Your task to perform on an android device: change the clock display to show seconds Image 0: 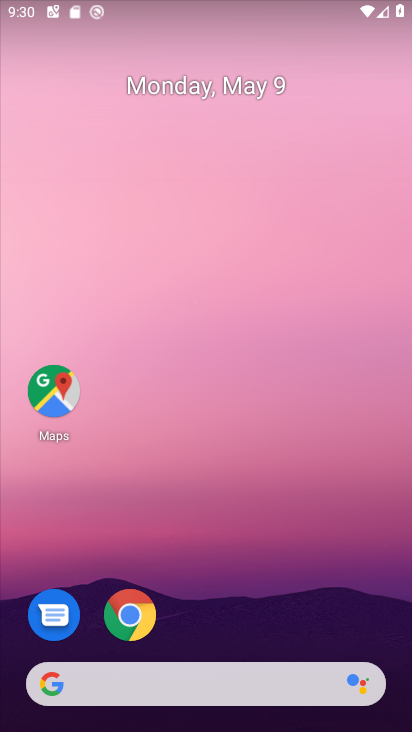
Step 0: drag from (278, 675) to (280, 305)
Your task to perform on an android device: change the clock display to show seconds Image 1: 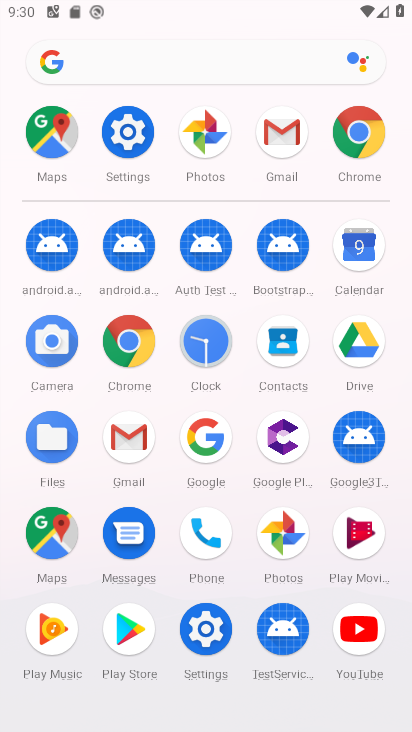
Step 1: click (220, 334)
Your task to perform on an android device: change the clock display to show seconds Image 2: 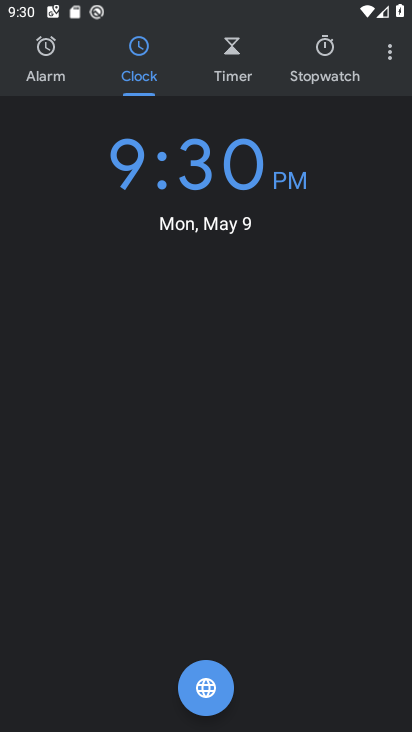
Step 2: click (392, 65)
Your task to perform on an android device: change the clock display to show seconds Image 3: 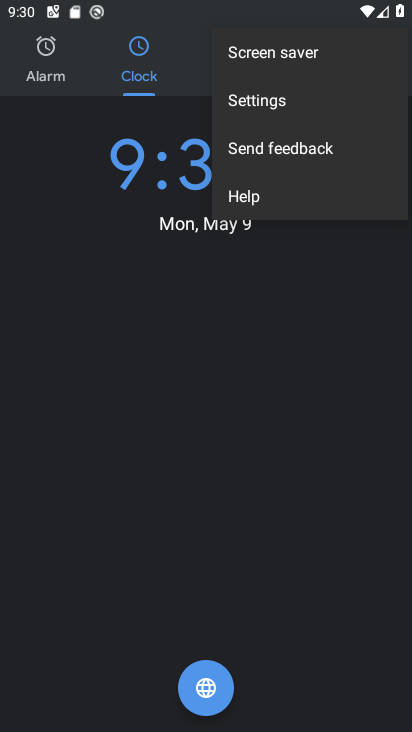
Step 3: click (298, 112)
Your task to perform on an android device: change the clock display to show seconds Image 4: 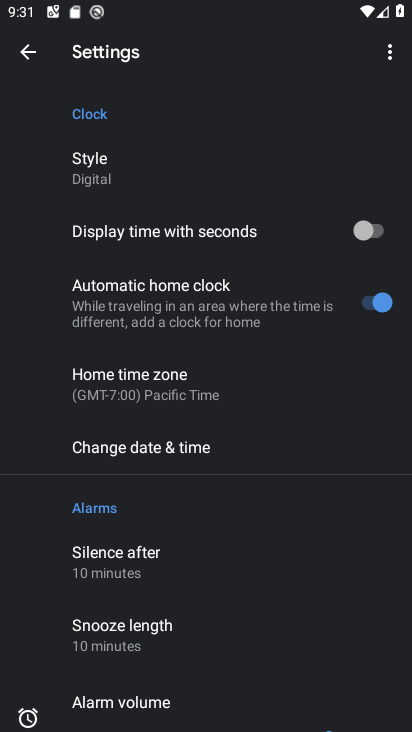
Step 4: click (336, 246)
Your task to perform on an android device: change the clock display to show seconds Image 5: 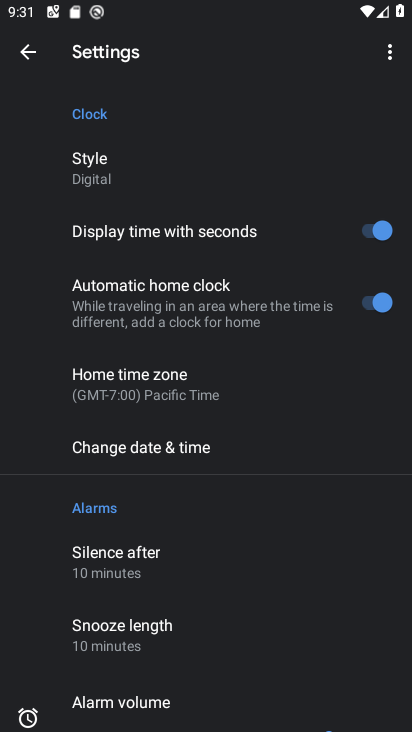
Step 5: task complete